Your task to perform on an android device: Go to Google Image 0: 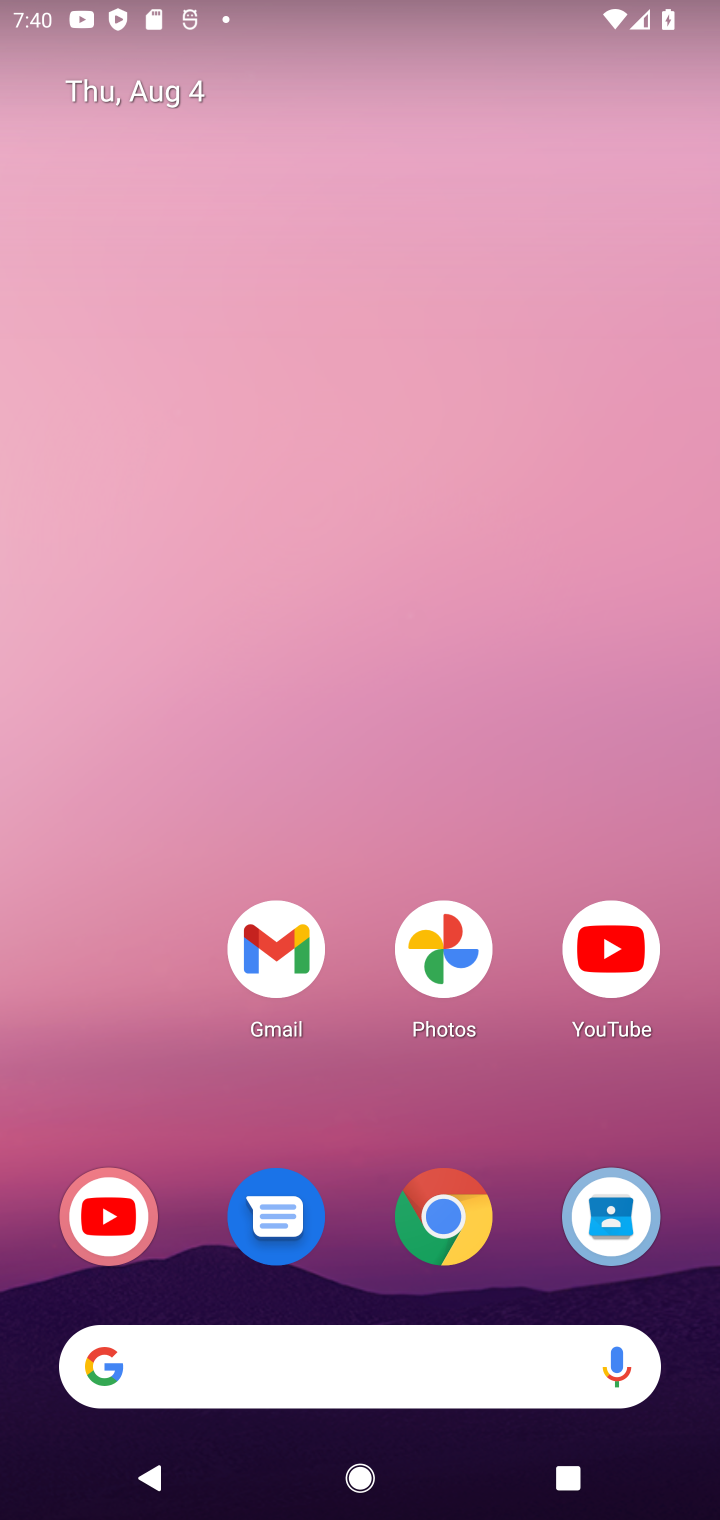
Step 0: drag from (399, 1283) to (285, 101)
Your task to perform on an android device: Go to Google Image 1: 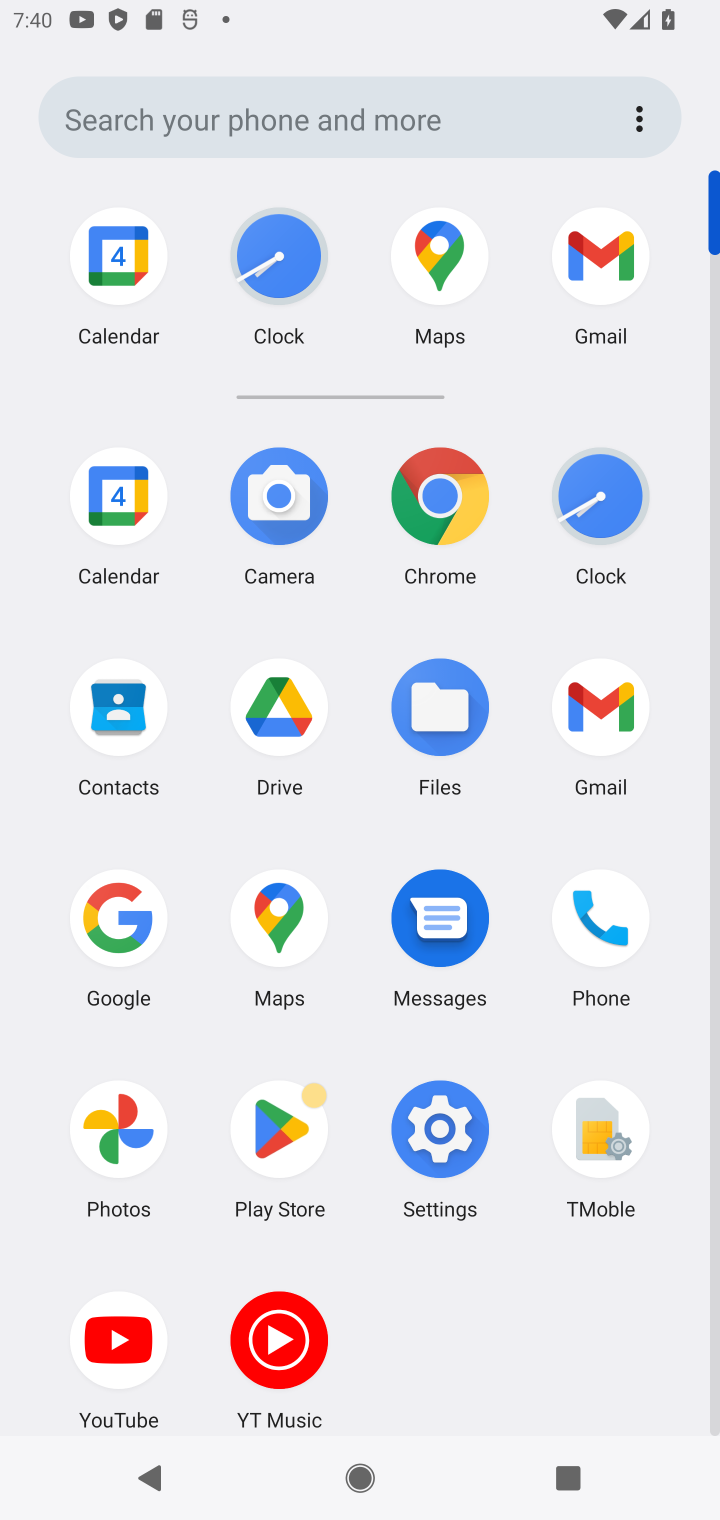
Step 1: click (120, 928)
Your task to perform on an android device: Go to Google Image 2: 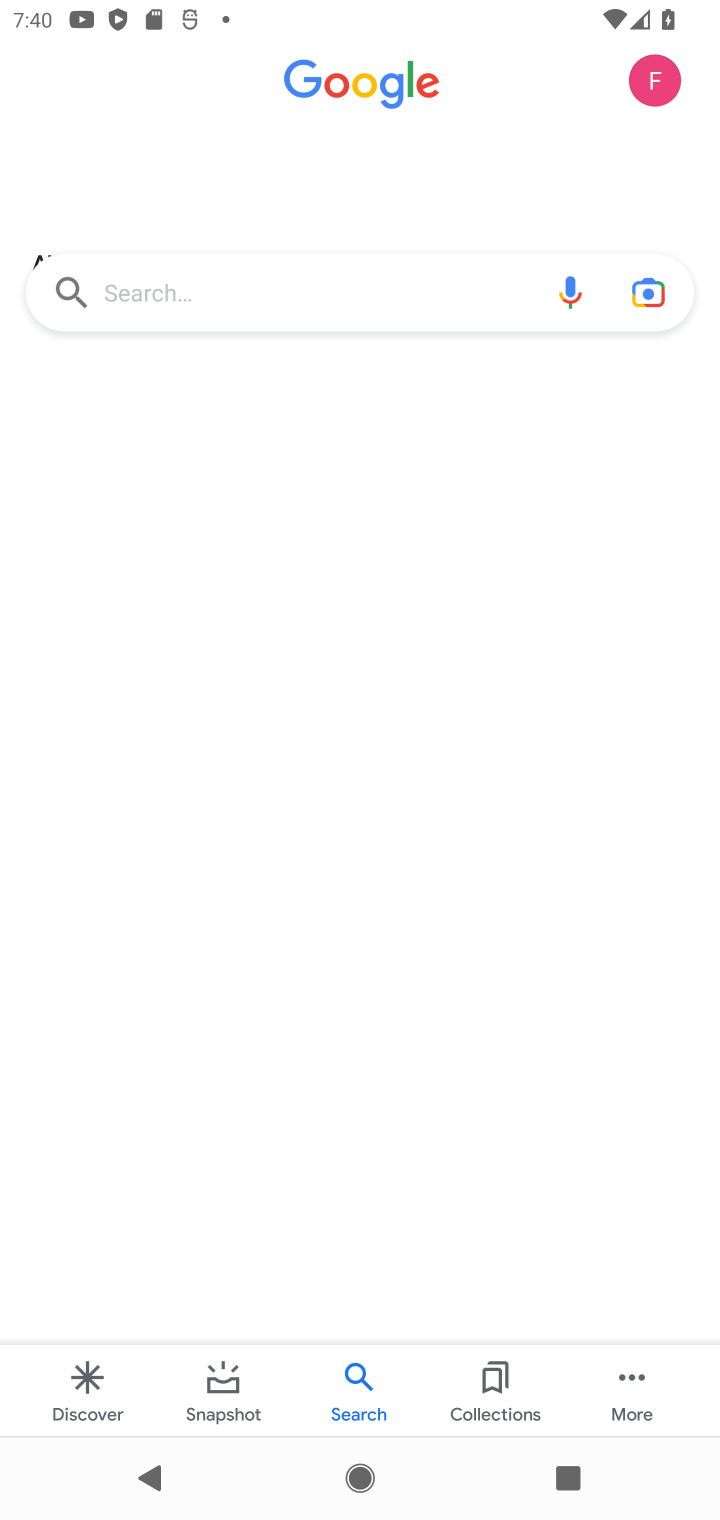
Step 2: task complete